Your task to perform on an android device: Go to Google Image 0: 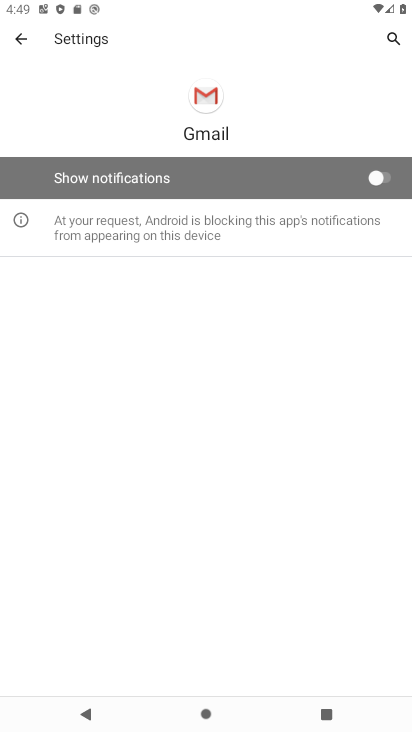
Step 0: press home button
Your task to perform on an android device: Go to Google Image 1: 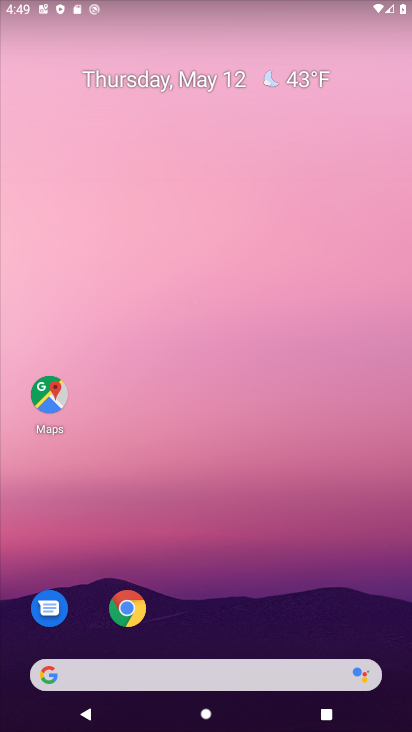
Step 1: drag from (343, 559) to (303, 151)
Your task to perform on an android device: Go to Google Image 2: 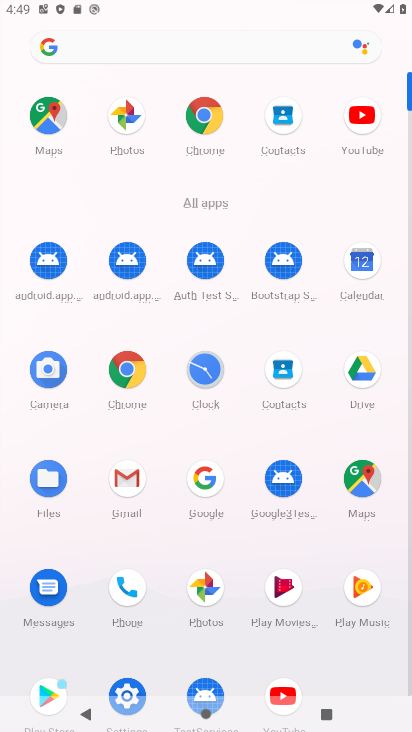
Step 2: click (205, 477)
Your task to perform on an android device: Go to Google Image 3: 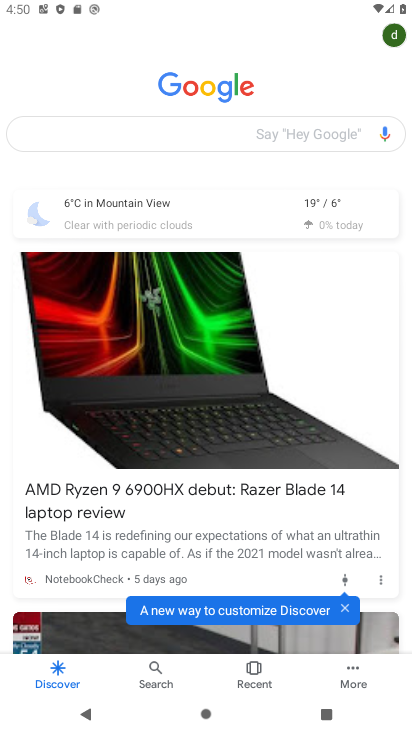
Step 3: task complete